Your task to perform on an android device: Go to Google Image 0: 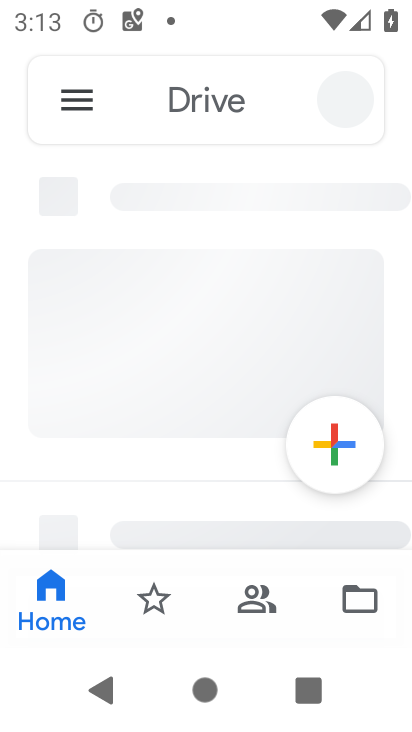
Step 0: drag from (217, 487) to (334, 7)
Your task to perform on an android device: Go to Google Image 1: 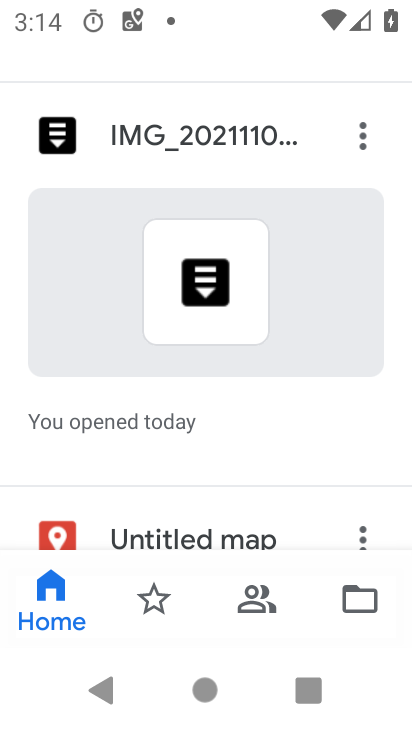
Step 1: press home button
Your task to perform on an android device: Go to Google Image 2: 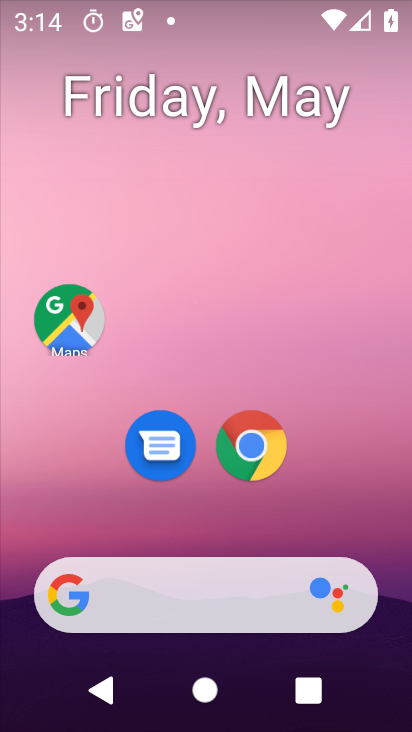
Step 2: drag from (269, 222) to (406, 570)
Your task to perform on an android device: Go to Google Image 3: 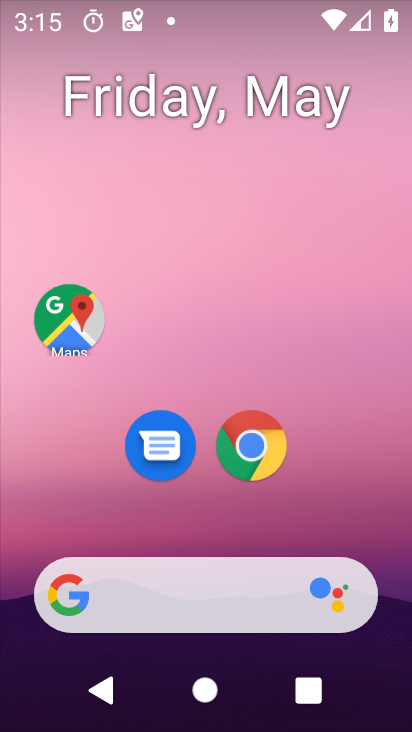
Step 3: drag from (273, 483) to (358, 24)
Your task to perform on an android device: Go to Google Image 4: 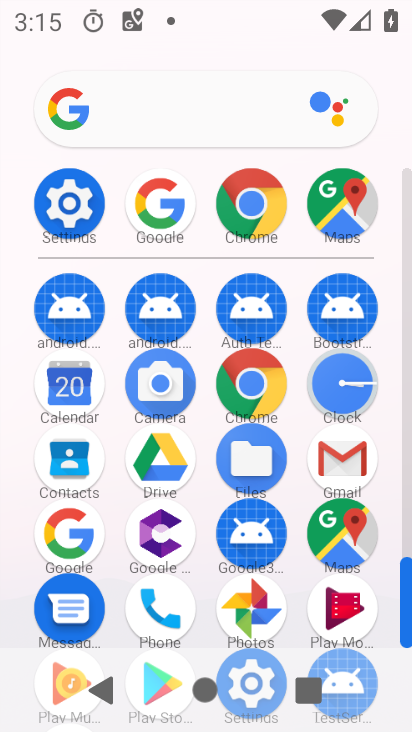
Step 4: click (164, 227)
Your task to perform on an android device: Go to Google Image 5: 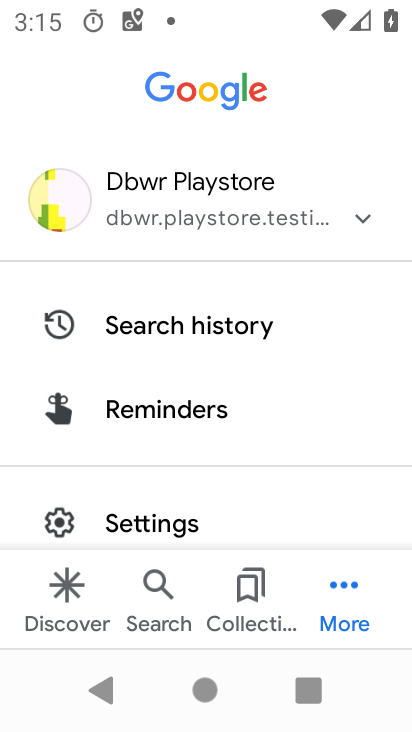
Step 5: task complete